Your task to perform on an android device: Open location settings Image 0: 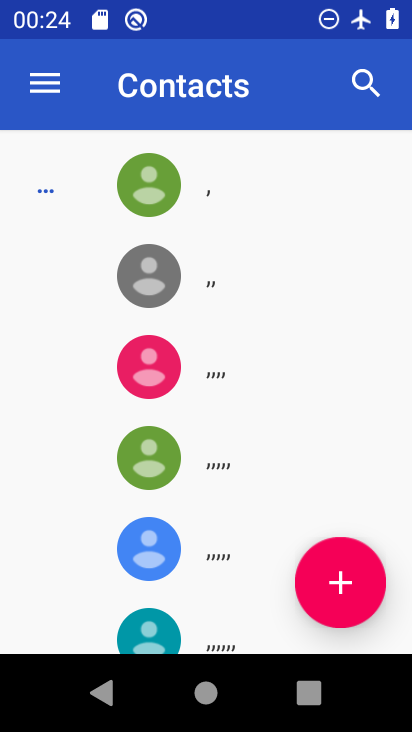
Step 0: press home button
Your task to perform on an android device: Open location settings Image 1: 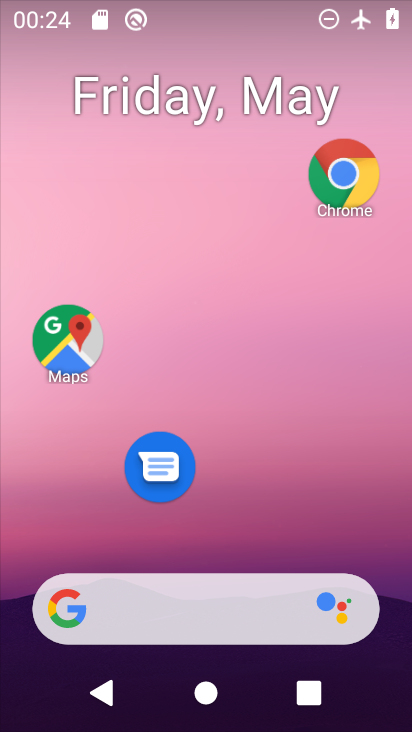
Step 1: drag from (234, 499) to (242, 240)
Your task to perform on an android device: Open location settings Image 2: 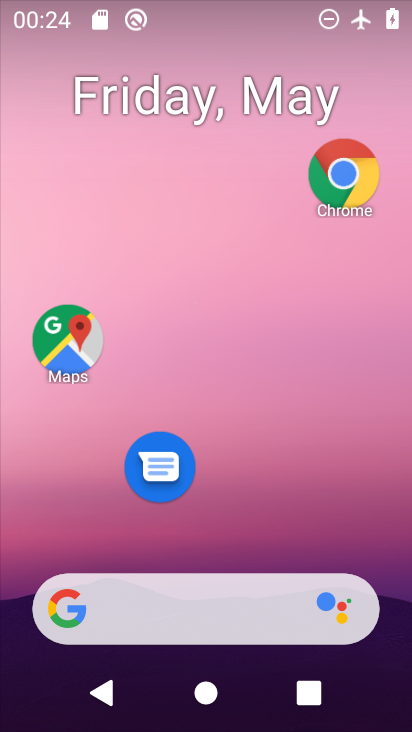
Step 2: drag from (239, 464) to (245, 201)
Your task to perform on an android device: Open location settings Image 3: 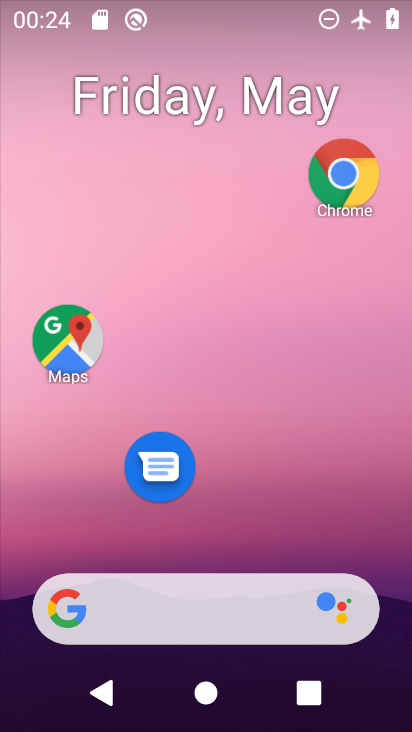
Step 3: drag from (218, 475) to (212, 170)
Your task to perform on an android device: Open location settings Image 4: 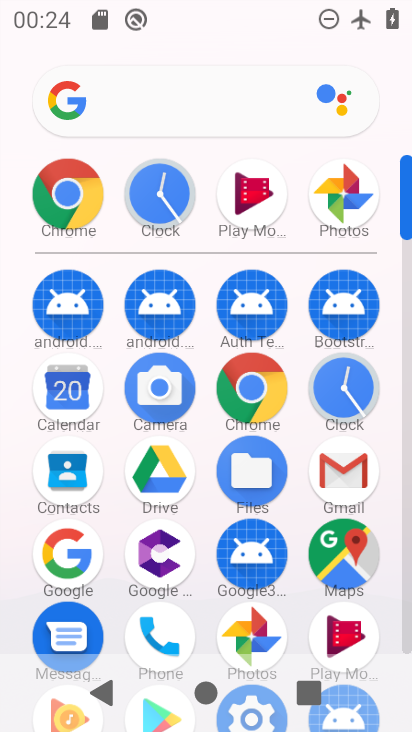
Step 4: drag from (177, 508) to (197, 303)
Your task to perform on an android device: Open location settings Image 5: 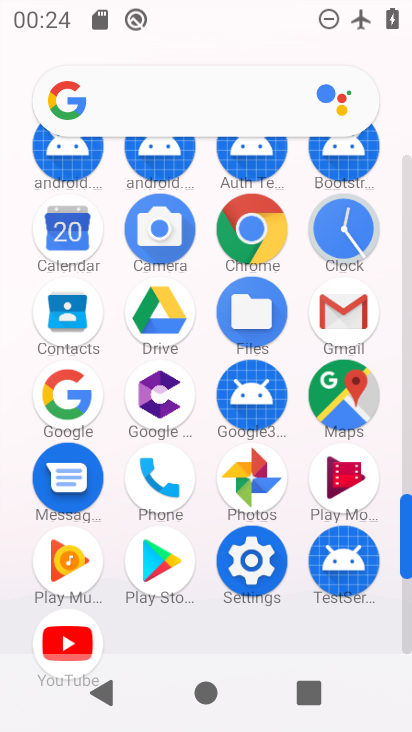
Step 5: click (244, 575)
Your task to perform on an android device: Open location settings Image 6: 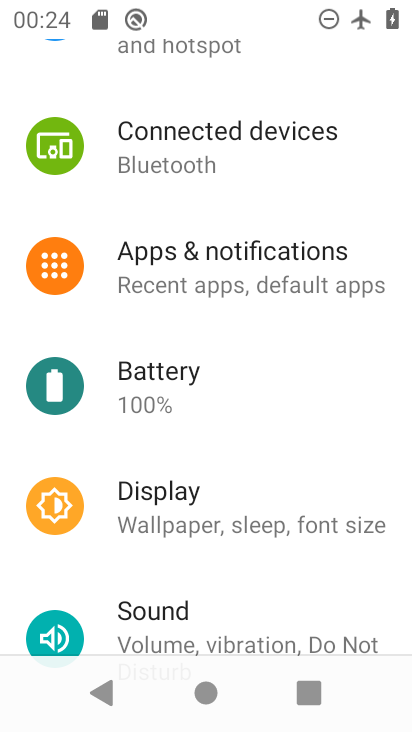
Step 6: drag from (268, 574) to (308, 123)
Your task to perform on an android device: Open location settings Image 7: 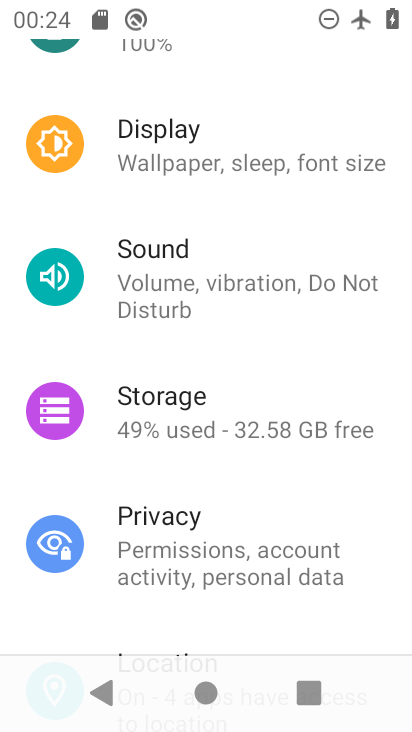
Step 7: drag from (240, 515) to (249, 100)
Your task to perform on an android device: Open location settings Image 8: 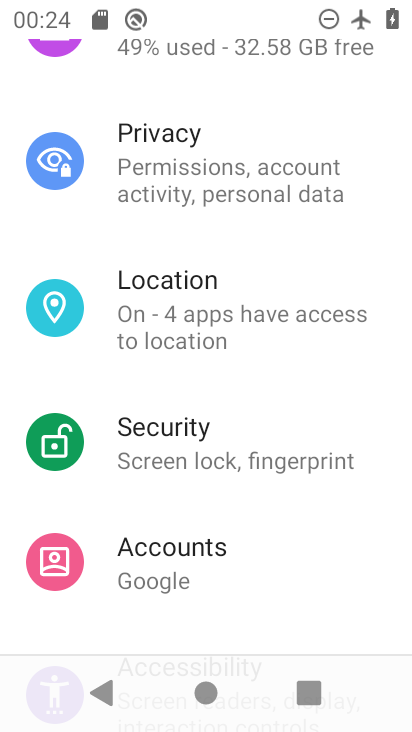
Step 8: click (239, 312)
Your task to perform on an android device: Open location settings Image 9: 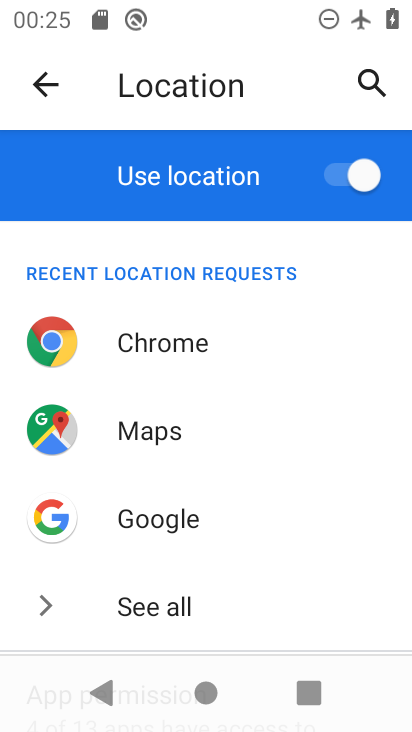
Step 9: task complete